Your task to perform on an android device: Search for Italian restaurants on Maps Image 0: 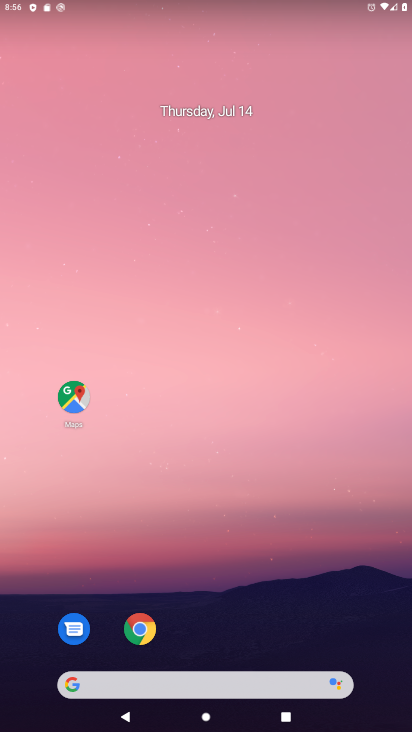
Step 0: click (69, 398)
Your task to perform on an android device: Search for Italian restaurants on Maps Image 1: 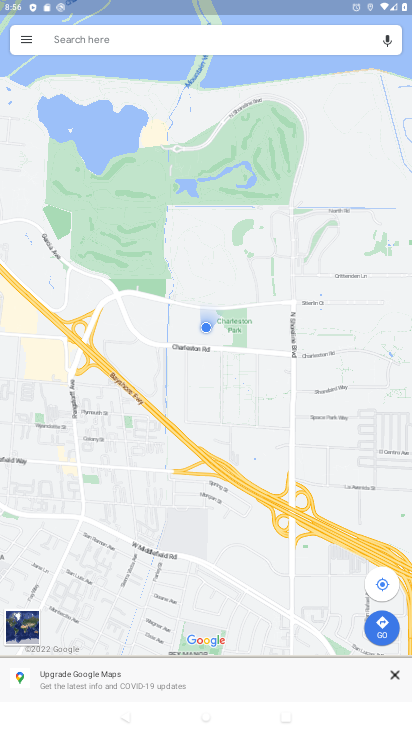
Step 1: click (191, 40)
Your task to perform on an android device: Search for Italian restaurants on Maps Image 2: 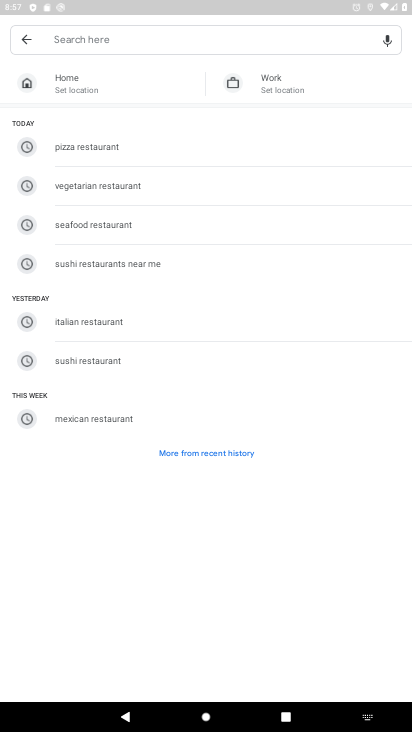
Step 2: type "italian restaurants"
Your task to perform on an android device: Search for Italian restaurants on Maps Image 3: 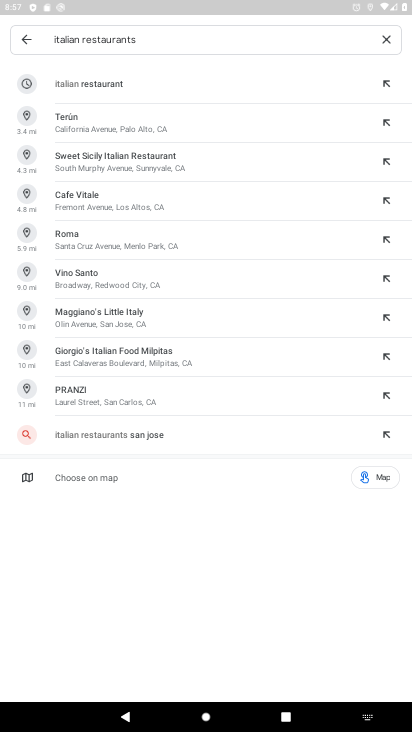
Step 3: click (82, 81)
Your task to perform on an android device: Search for Italian restaurants on Maps Image 4: 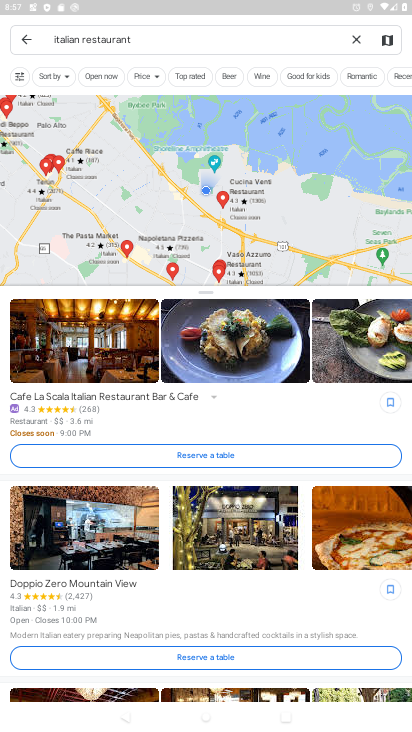
Step 4: task complete